Your task to perform on an android device: Open maps Image 0: 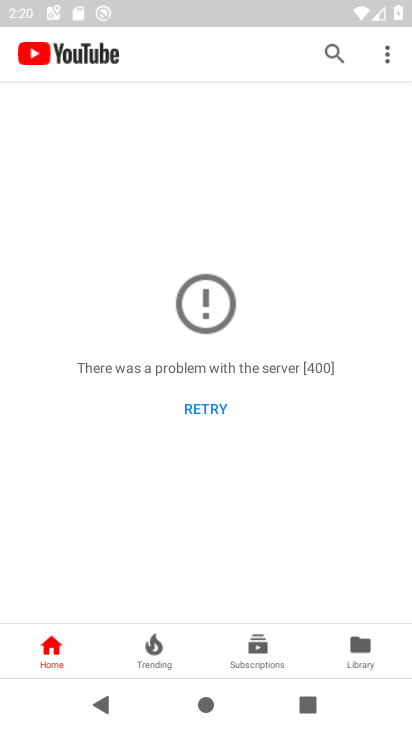
Step 0: press home button
Your task to perform on an android device: Open maps Image 1: 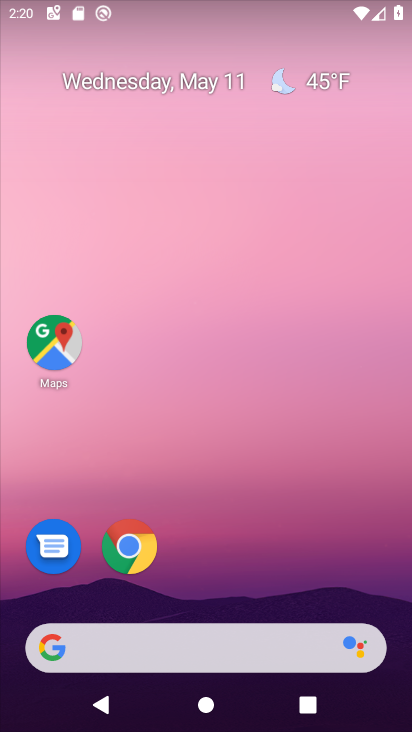
Step 1: drag from (192, 588) to (62, 6)
Your task to perform on an android device: Open maps Image 2: 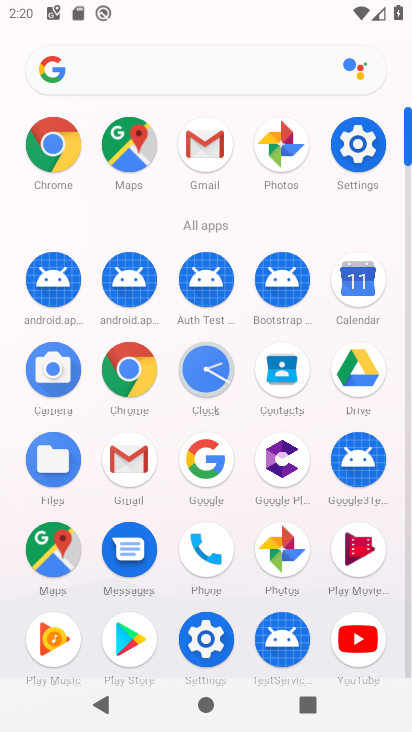
Step 2: click (49, 556)
Your task to perform on an android device: Open maps Image 3: 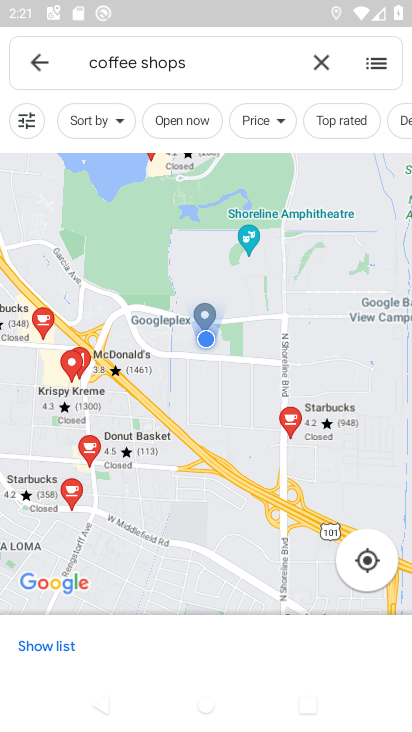
Step 3: task complete